Your task to perform on an android device: Search for Mexican restaurants on Maps Image 0: 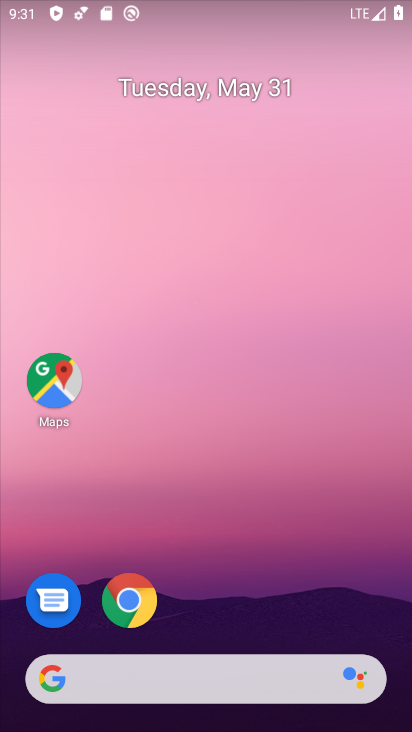
Step 0: click (56, 377)
Your task to perform on an android device: Search for Mexican restaurants on Maps Image 1: 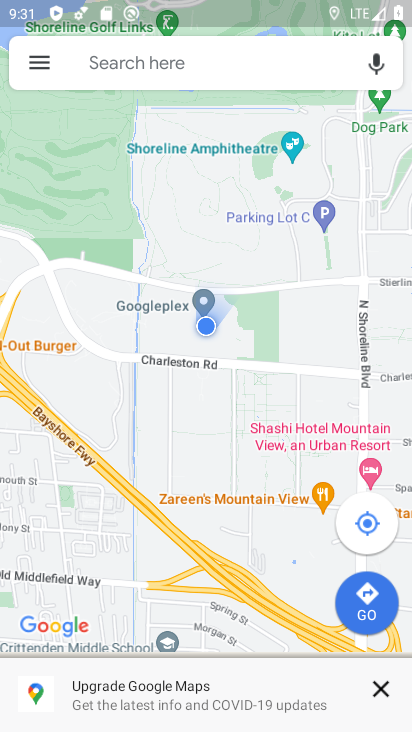
Step 1: click (201, 64)
Your task to perform on an android device: Search for Mexican restaurants on Maps Image 2: 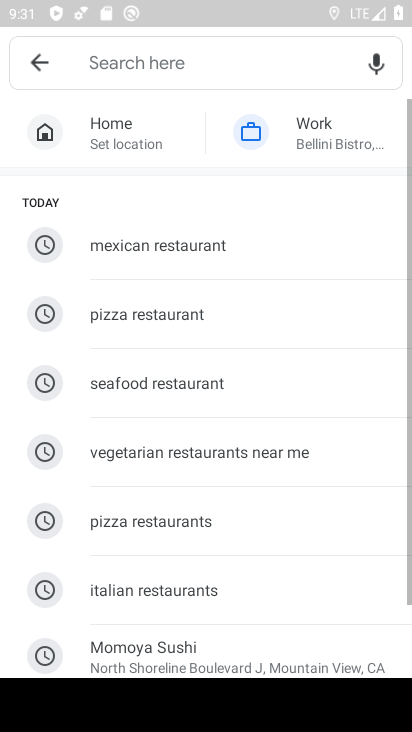
Step 2: click (176, 242)
Your task to perform on an android device: Search for Mexican restaurants on Maps Image 3: 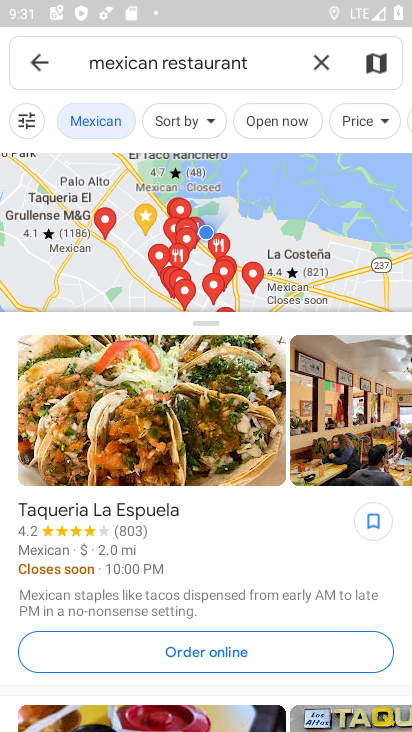
Step 3: task complete